Your task to perform on an android device: turn off notifications settings in the gmail app Image 0: 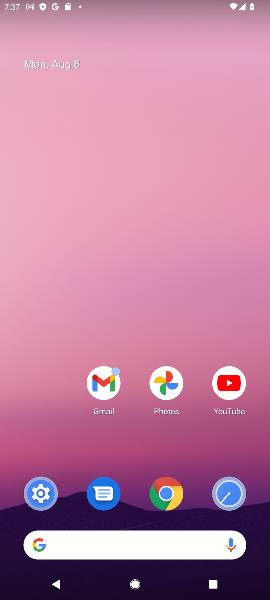
Step 0: click (120, 374)
Your task to perform on an android device: turn off notifications settings in the gmail app Image 1: 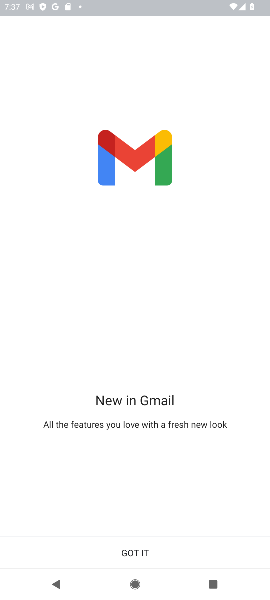
Step 1: click (109, 556)
Your task to perform on an android device: turn off notifications settings in the gmail app Image 2: 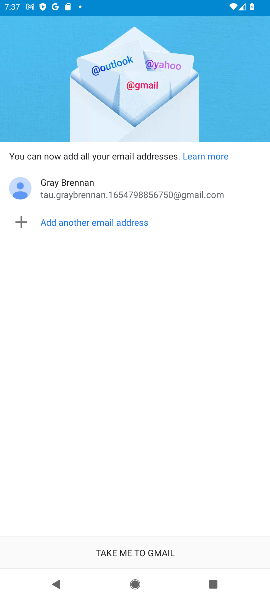
Step 2: click (145, 552)
Your task to perform on an android device: turn off notifications settings in the gmail app Image 3: 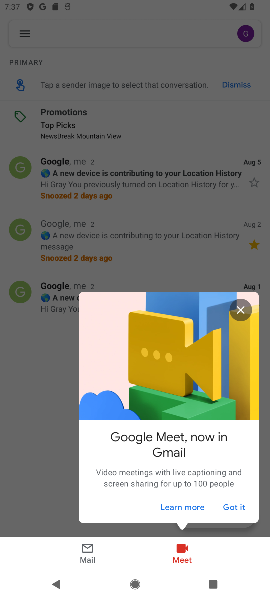
Step 3: click (231, 511)
Your task to perform on an android device: turn off notifications settings in the gmail app Image 4: 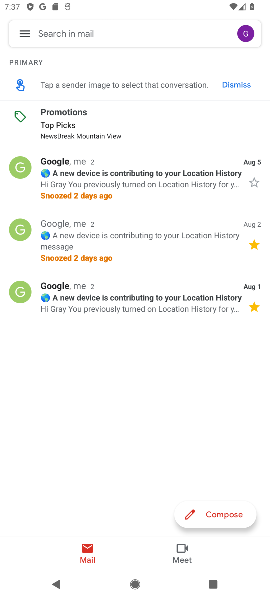
Step 4: click (22, 30)
Your task to perform on an android device: turn off notifications settings in the gmail app Image 5: 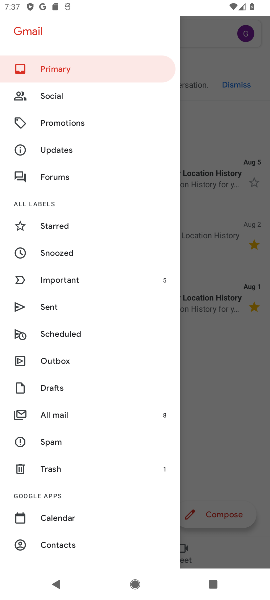
Step 5: drag from (53, 474) to (42, 182)
Your task to perform on an android device: turn off notifications settings in the gmail app Image 6: 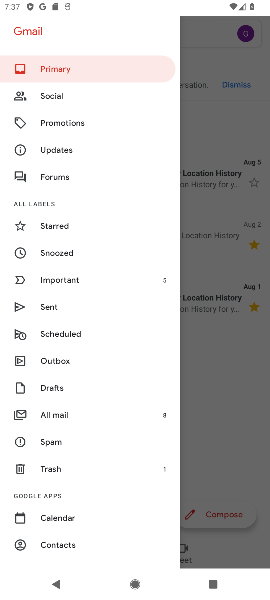
Step 6: drag from (71, 479) to (99, 91)
Your task to perform on an android device: turn off notifications settings in the gmail app Image 7: 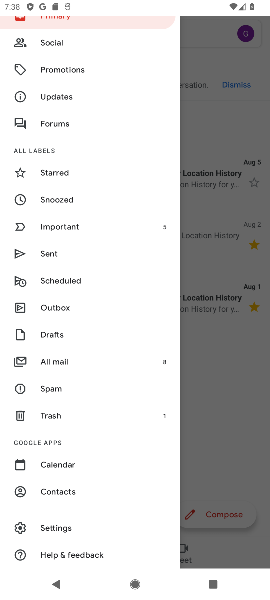
Step 7: click (56, 527)
Your task to perform on an android device: turn off notifications settings in the gmail app Image 8: 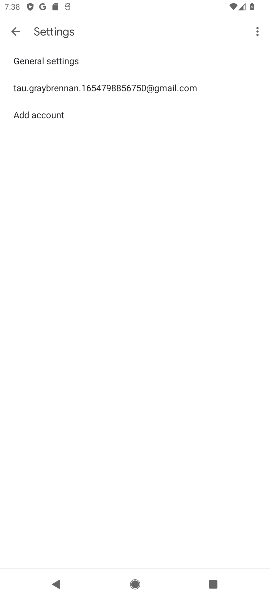
Step 8: click (74, 86)
Your task to perform on an android device: turn off notifications settings in the gmail app Image 9: 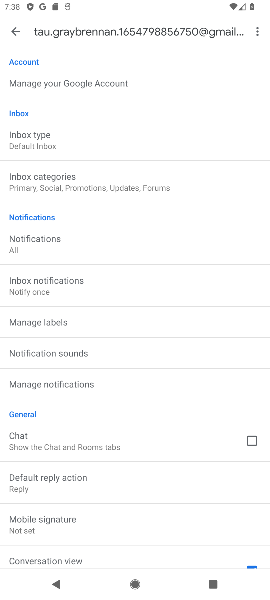
Step 9: click (67, 385)
Your task to perform on an android device: turn off notifications settings in the gmail app Image 10: 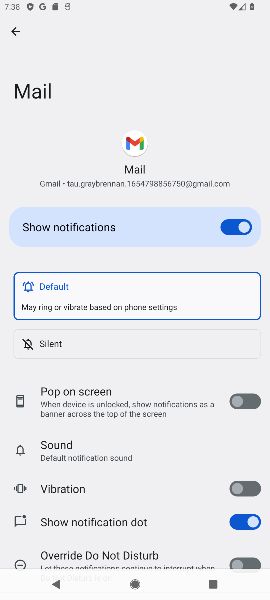
Step 10: click (238, 222)
Your task to perform on an android device: turn off notifications settings in the gmail app Image 11: 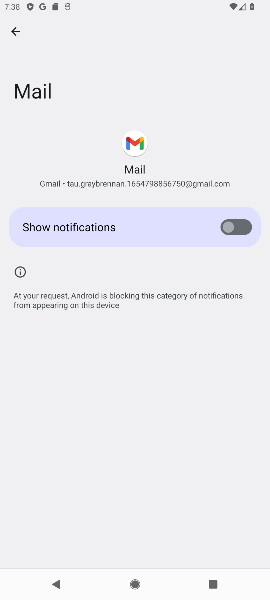
Step 11: task complete